Your task to perform on an android device: Search for "usb-c to usb-b" on walmart.com, select the first entry, add it to the cart, then select checkout. Image 0: 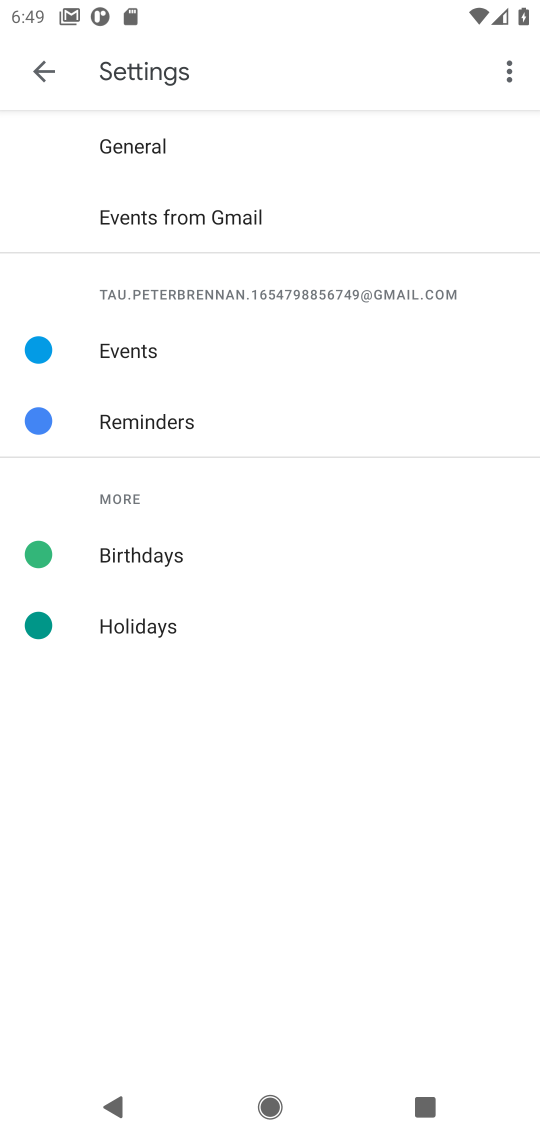
Step 0: press home button
Your task to perform on an android device: Search for "usb-c to usb-b" on walmart.com, select the first entry, add it to the cart, then select checkout. Image 1: 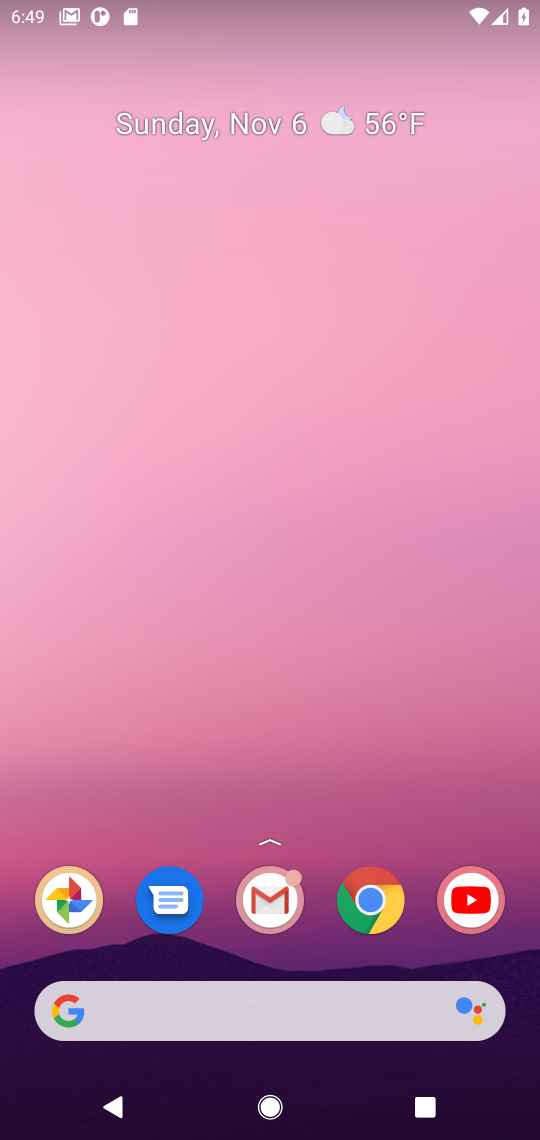
Step 1: drag from (348, 373) to (348, 47)
Your task to perform on an android device: Search for "usb-c to usb-b" on walmart.com, select the first entry, add it to the cart, then select checkout. Image 2: 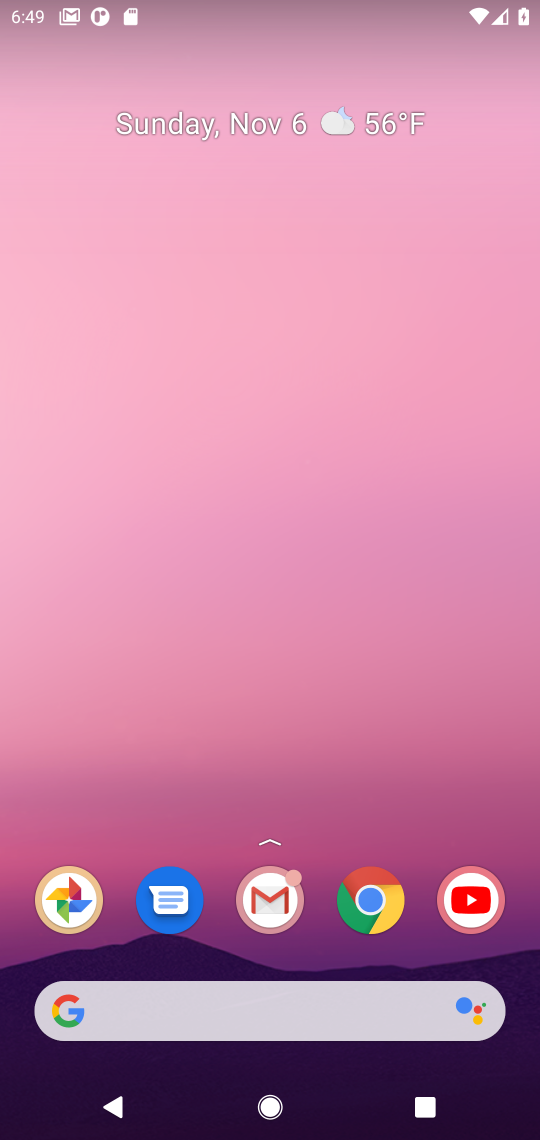
Step 2: drag from (320, 962) to (334, 0)
Your task to perform on an android device: Search for "usb-c to usb-b" on walmart.com, select the first entry, add it to the cart, then select checkout. Image 3: 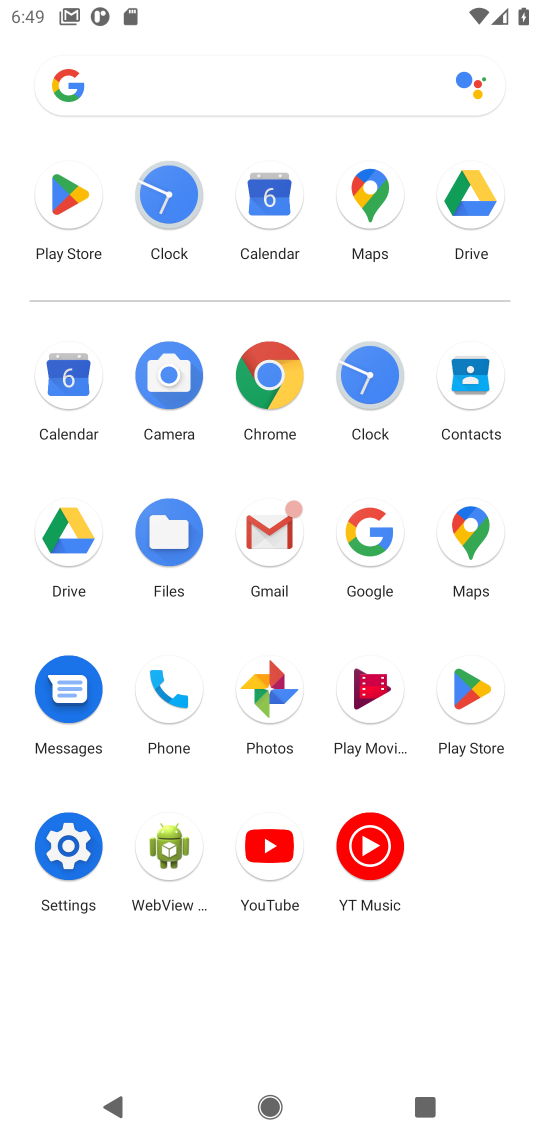
Step 3: click (267, 386)
Your task to perform on an android device: Search for "usb-c to usb-b" on walmart.com, select the first entry, add it to the cart, then select checkout. Image 4: 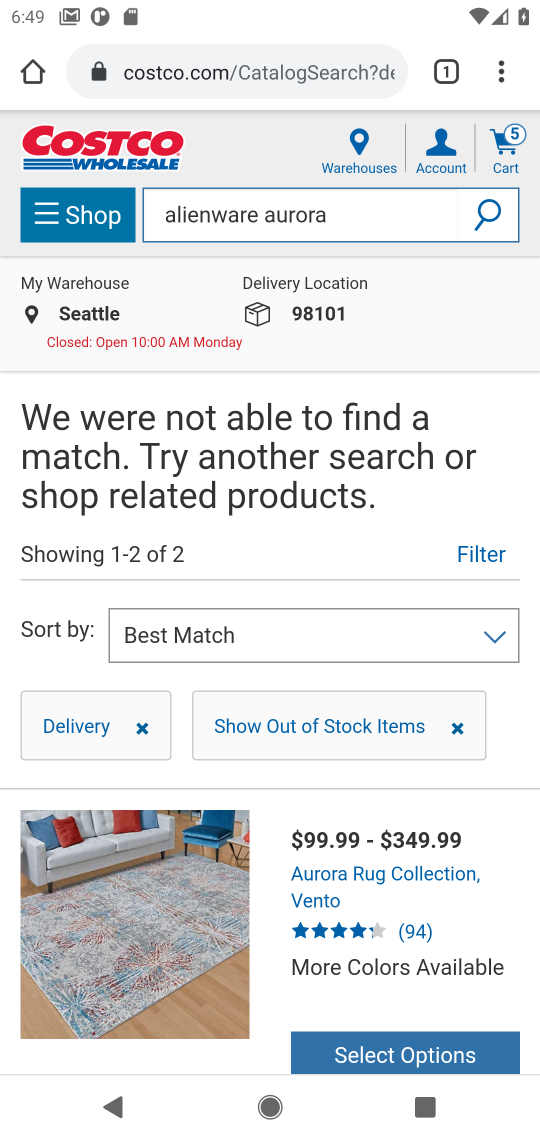
Step 4: click (287, 64)
Your task to perform on an android device: Search for "usb-c to usb-b" on walmart.com, select the first entry, add it to the cart, then select checkout. Image 5: 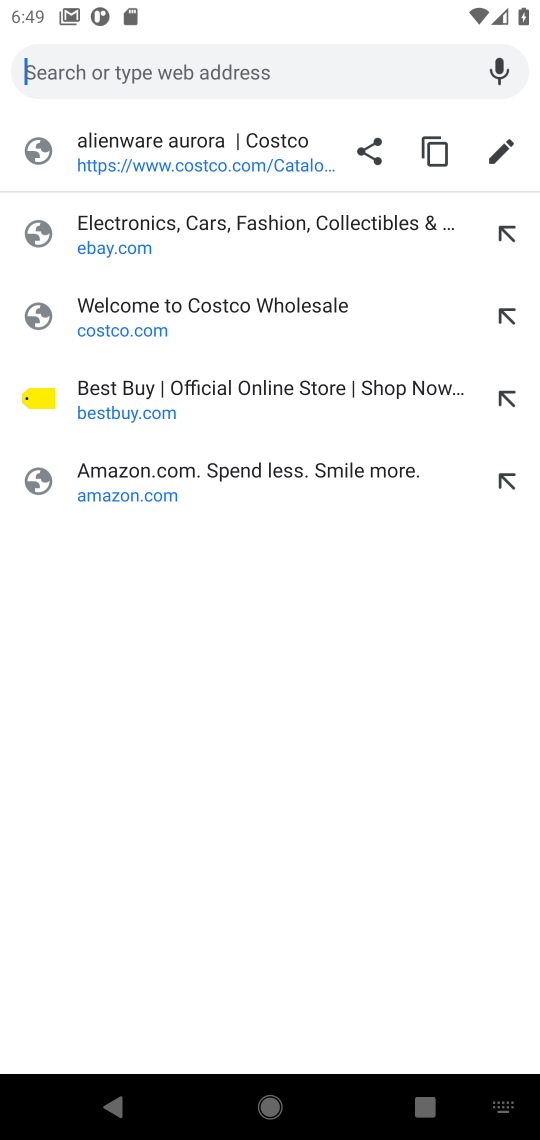
Step 5: type "walmart.com"
Your task to perform on an android device: Search for "usb-c to usb-b" on walmart.com, select the first entry, add it to the cart, then select checkout. Image 6: 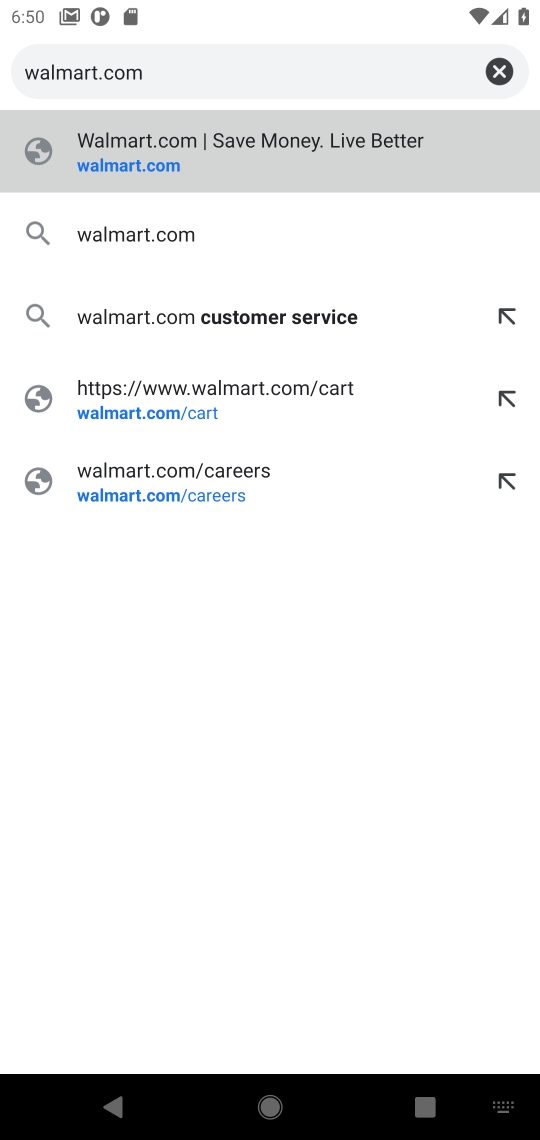
Step 6: press enter
Your task to perform on an android device: Search for "usb-c to usb-b" on walmart.com, select the first entry, add it to the cart, then select checkout. Image 7: 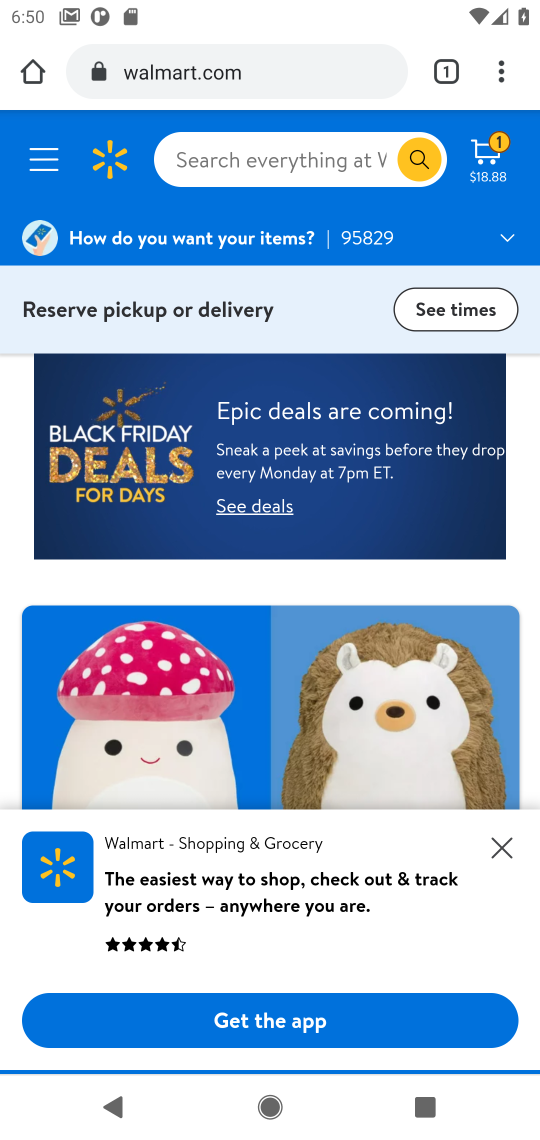
Step 7: click (269, 167)
Your task to perform on an android device: Search for "usb-c to usb-b" on walmart.com, select the first entry, add it to the cart, then select checkout. Image 8: 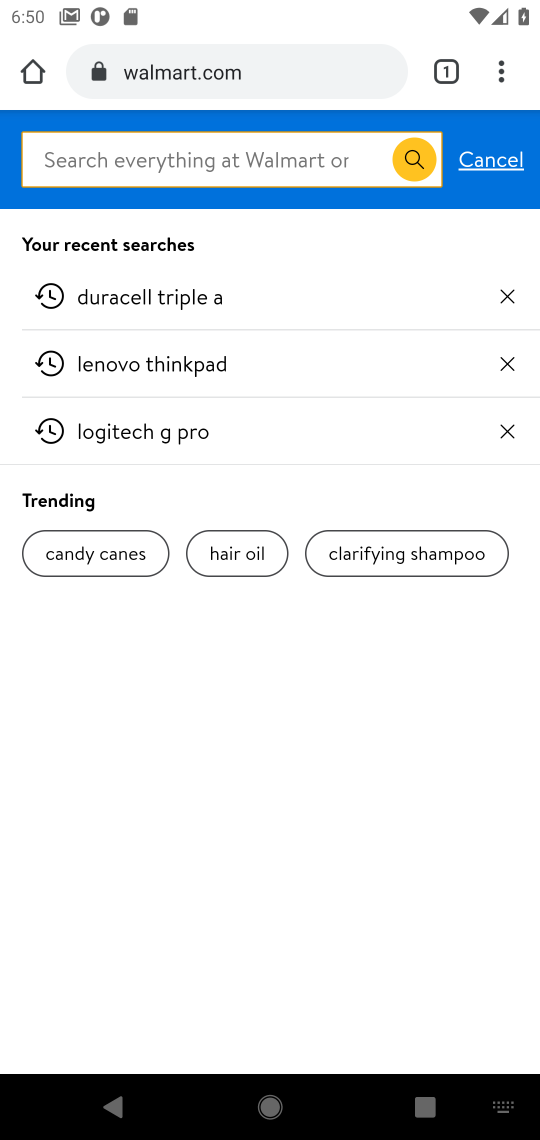
Step 8: type "usb-c to usb-b"
Your task to perform on an android device: Search for "usb-c to usb-b" on walmart.com, select the first entry, add it to the cart, then select checkout. Image 9: 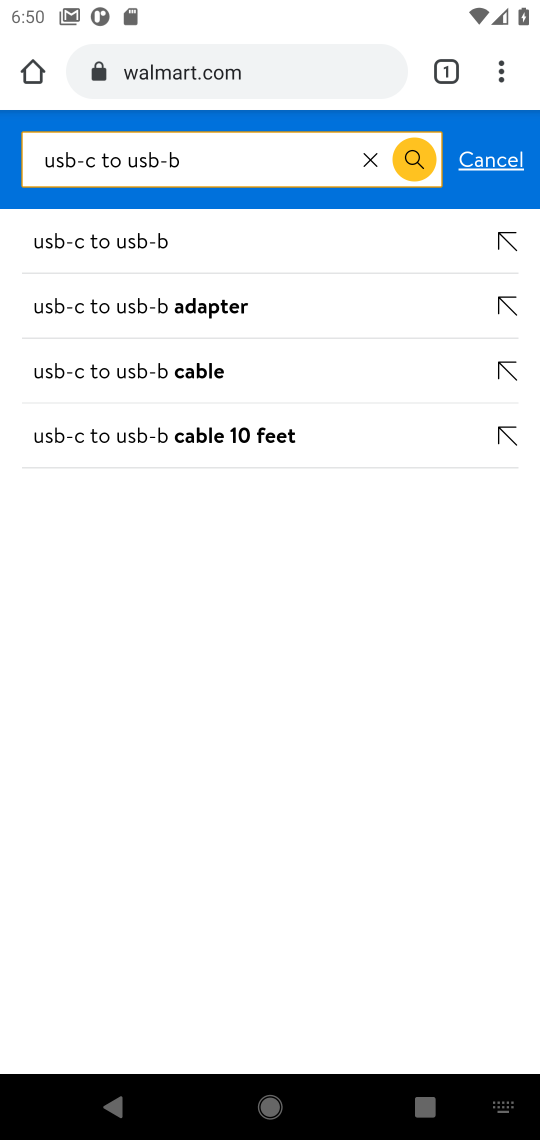
Step 9: press enter
Your task to perform on an android device: Search for "usb-c to usb-b" on walmart.com, select the first entry, add it to the cart, then select checkout. Image 10: 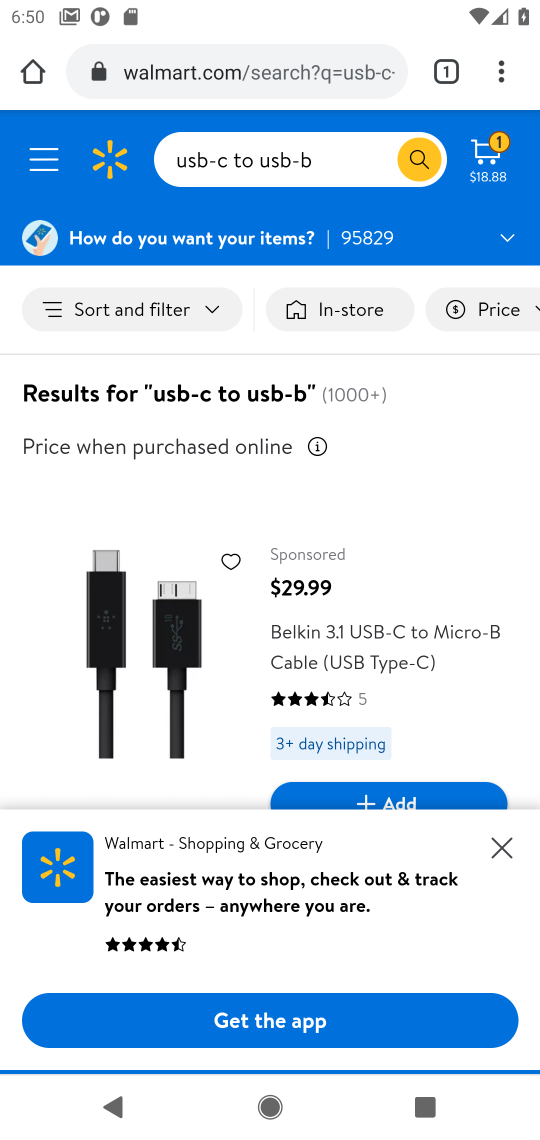
Step 10: drag from (369, 685) to (383, 172)
Your task to perform on an android device: Search for "usb-c to usb-b" on walmart.com, select the first entry, add it to the cart, then select checkout. Image 11: 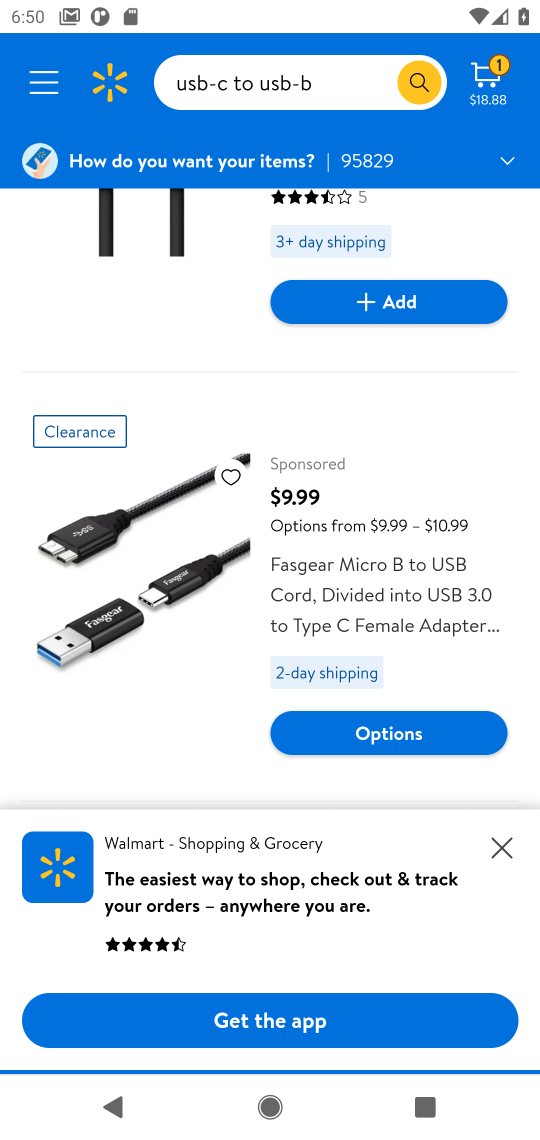
Step 11: drag from (297, 651) to (341, 294)
Your task to perform on an android device: Search for "usb-c to usb-b" on walmart.com, select the first entry, add it to the cart, then select checkout. Image 12: 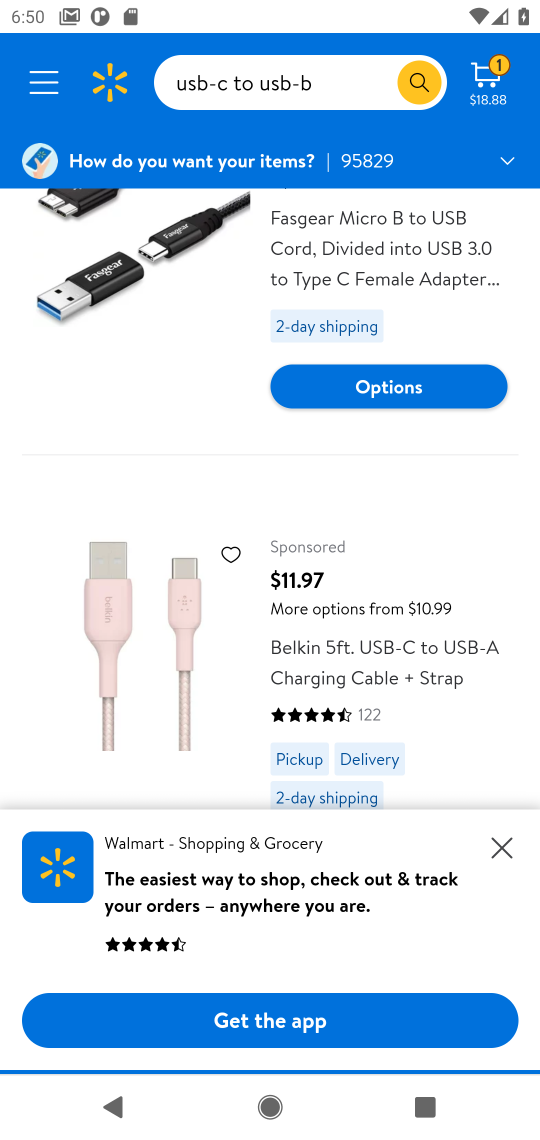
Step 12: drag from (355, 671) to (357, 283)
Your task to perform on an android device: Search for "usb-c to usb-b" on walmart.com, select the first entry, add it to the cart, then select checkout. Image 13: 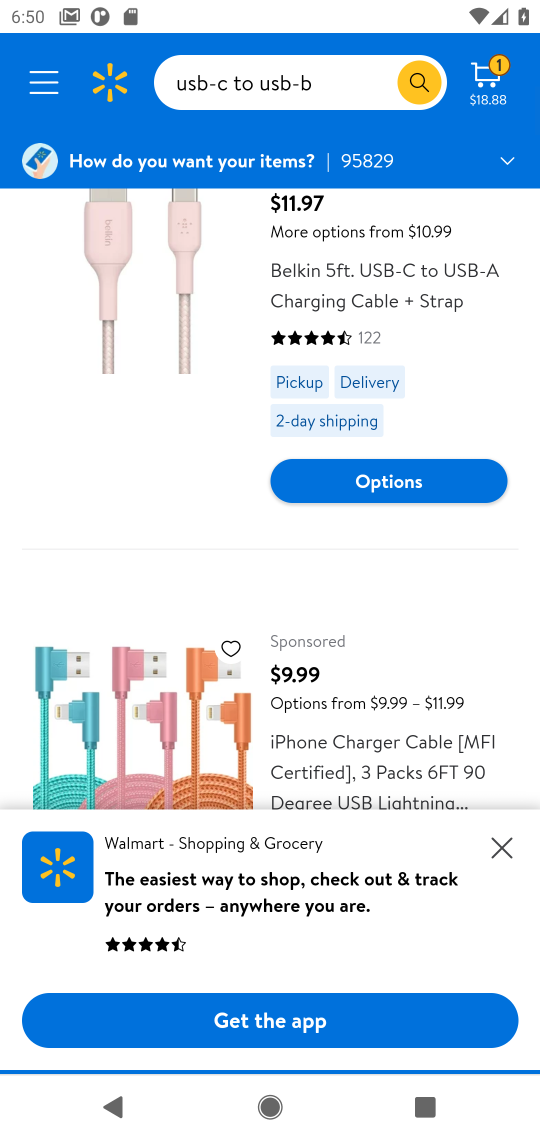
Step 13: drag from (312, 683) to (348, 258)
Your task to perform on an android device: Search for "usb-c to usb-b" on walmart.com, select the first entry, add it to the cart, then select checkout. Image 14: 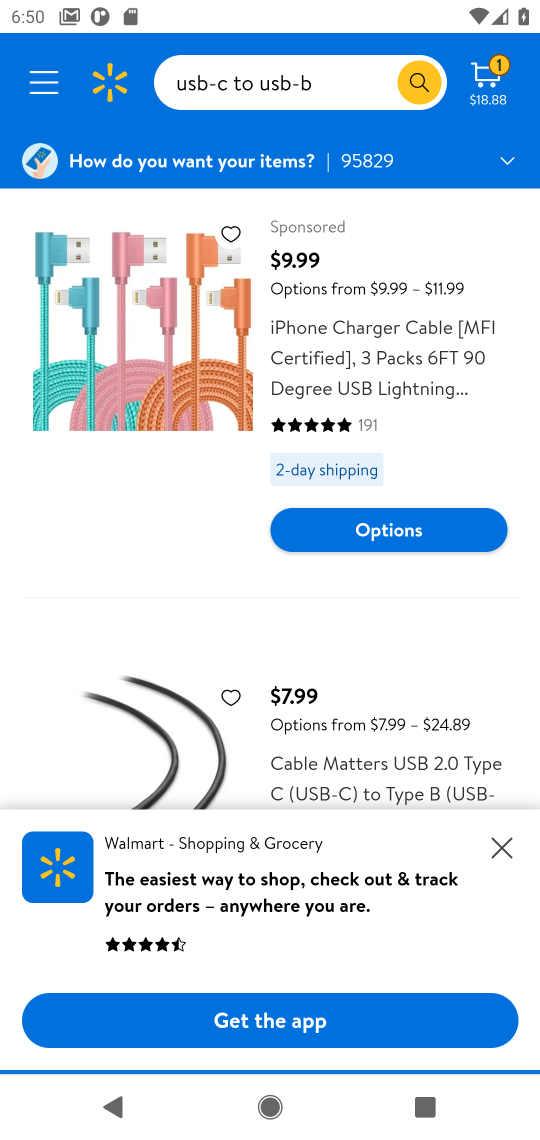
Step 14: drag from (320, 789) to (370, 579)
Your task to perform on an android device: Search for "usb-c to usb-b" on walmart.com, select the first entry, add it to the cart, then select checkout. Image 15: 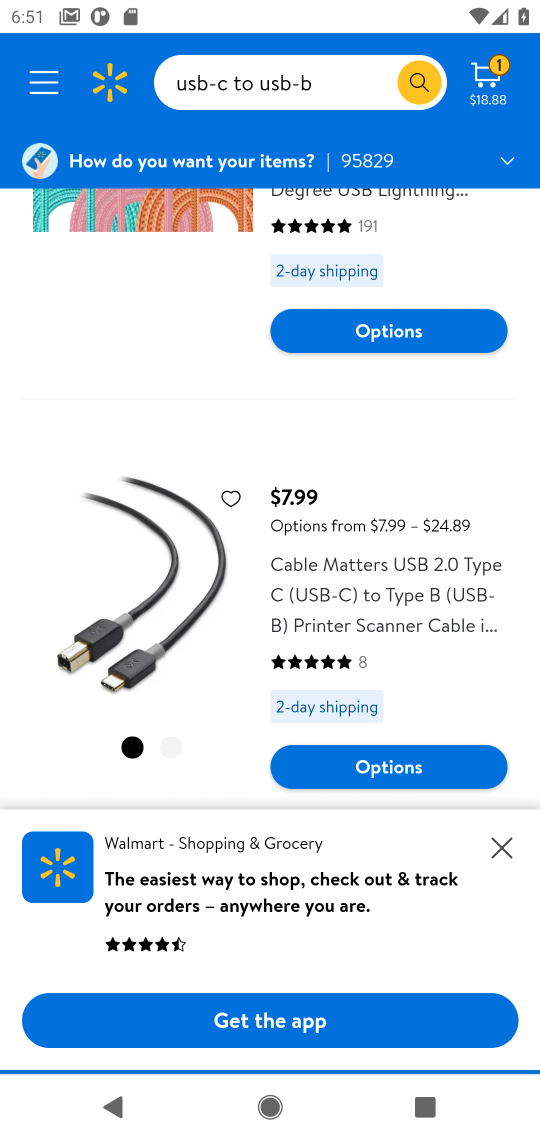
Step 15: drag from (383, 530) to (397, 301)
Your task to perform on an android device: Search for "usb-c to usb-b" on walmart.com, select the first entry, add it to the cart, then select checkout. Image 16: 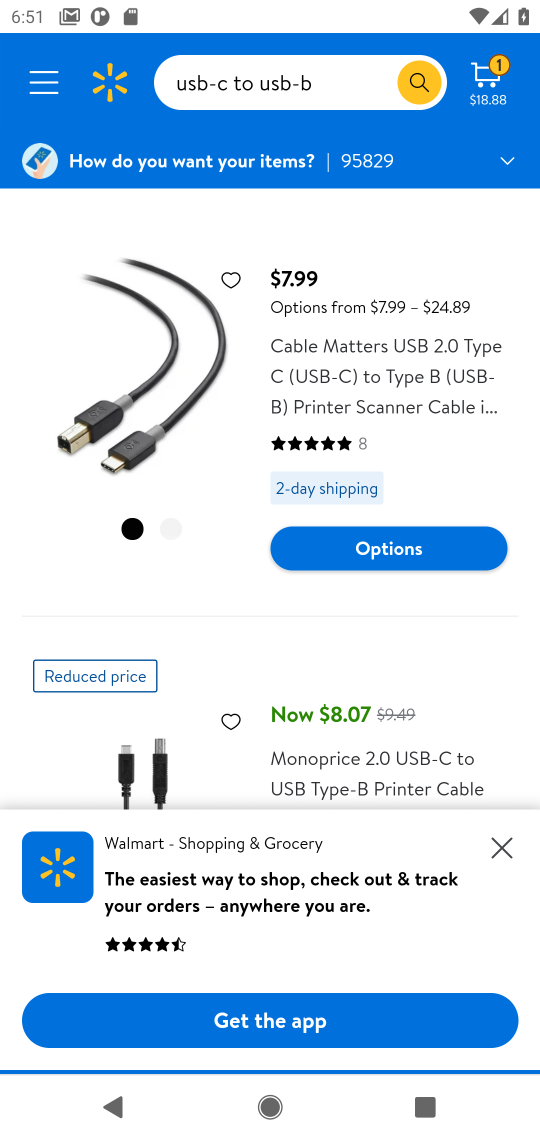
Step 16: drag from (410, 672) to (379, 447)
Your task to perform on an android device: Search for "usb-c to usb-b" on walmart.com, select the first entry, add it to the cart, then select checkout. Image 17: 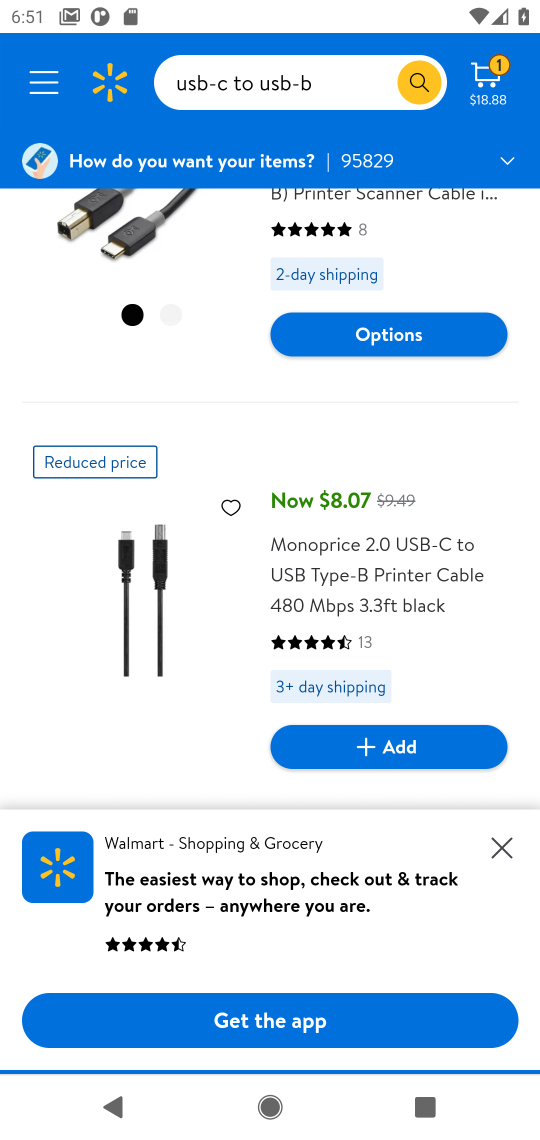
Step 17: click (379, 747)
Your task to perform on an android device: Search for "usb-c to usb-b" on walmart.com, select the first entry, add it to the cart, then select checkout. Image 18: 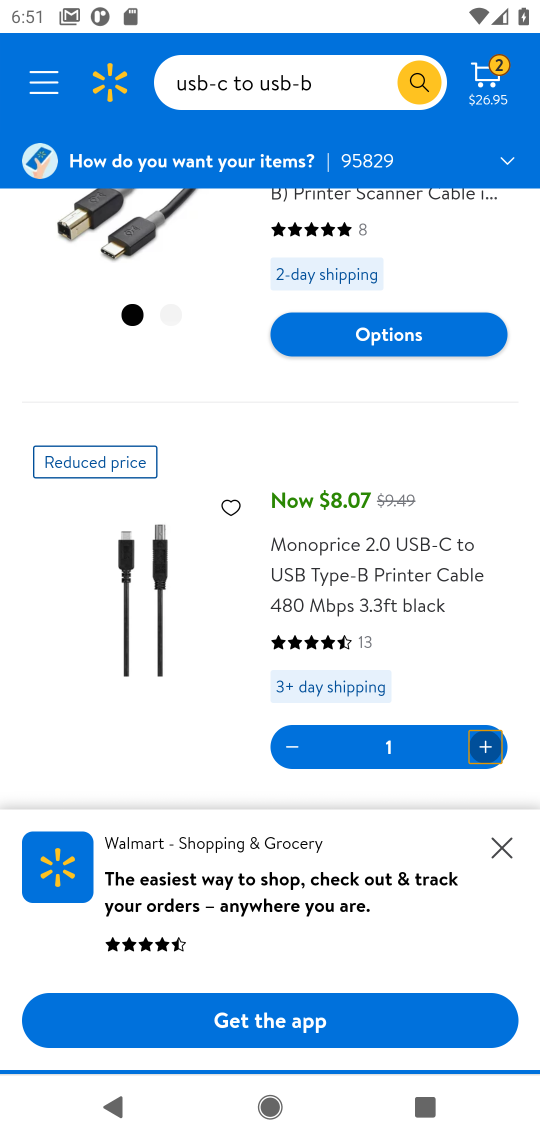
Step 18: click (475, 87)
Your task to perform on an android device: Search for "usb-c to usb-b" on walmart.com, select the first entry, add it to the cart, then select checkout. Image 19: 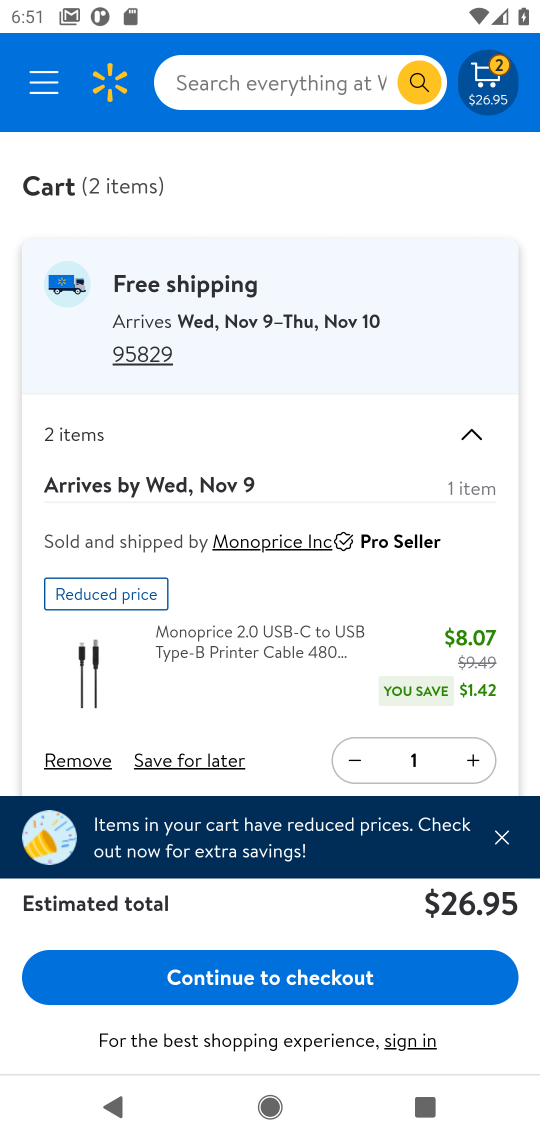
Step 19: click (324, 987)
Your task to perform on an android device: Search for "usb-c to usb-b" on walmart.com, select the first entry, add it to the cart, then select checkout. Image 20: 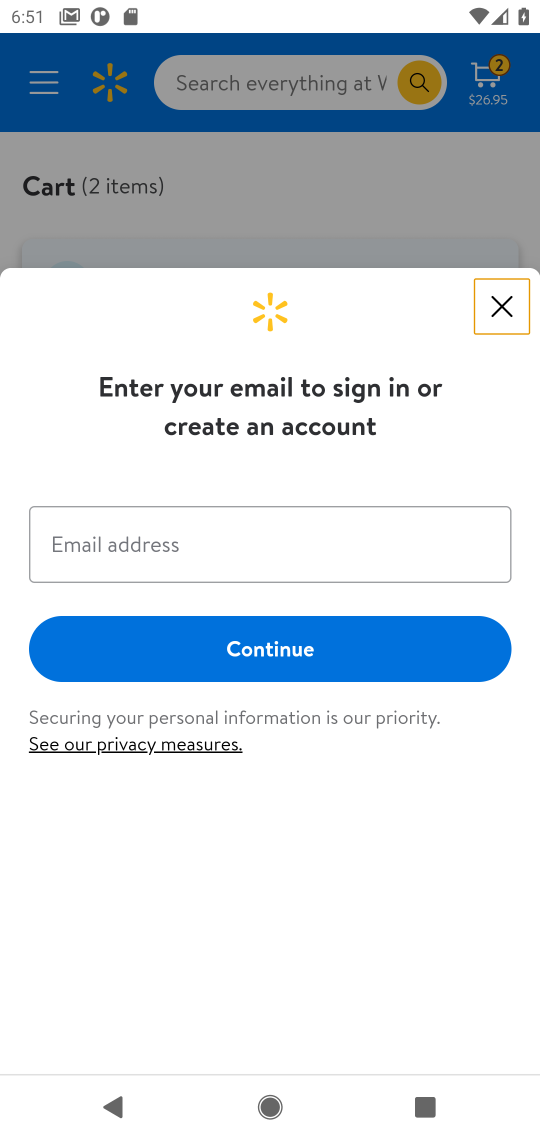
Step 20: task complete